Your task to perform on an android device: snooze an email in the gmail app Image 0: 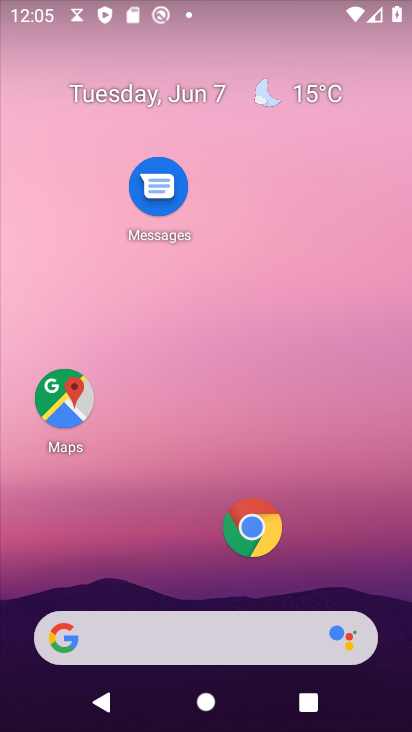
Step 0: drag from (156, 546) to (210, 158)
Your task to perform on an android device: snooze an email in the gmail app Image 1: 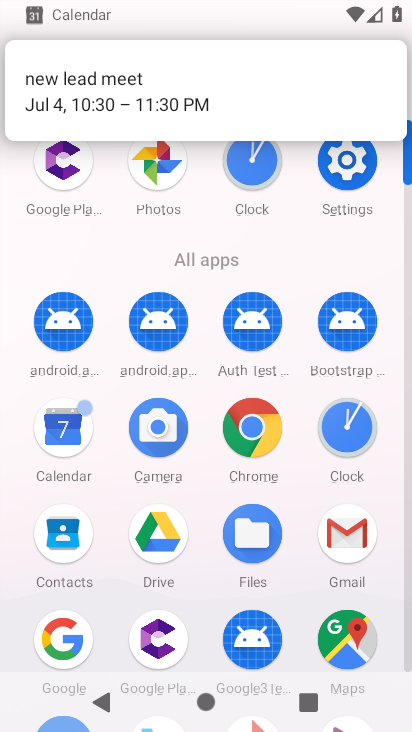
Step 1: click (352, 530)
Your task to perform on an android device: snooze an email in the gmail app Image 2: 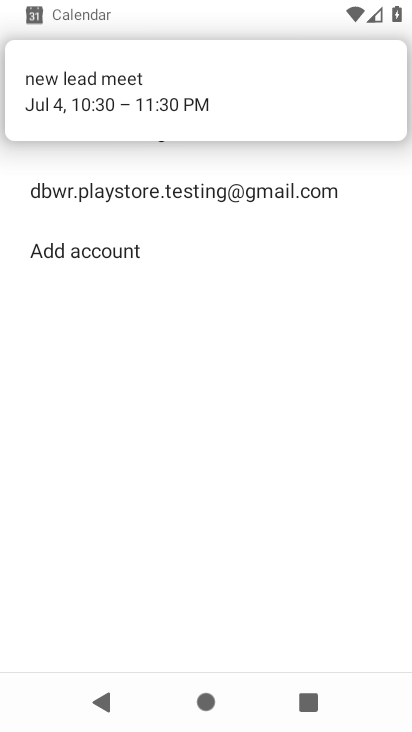
Step 2: drag from (31, 96) to (404, 104)
Your task to perform on an android device: snooze an email in the gmail app Image 3: 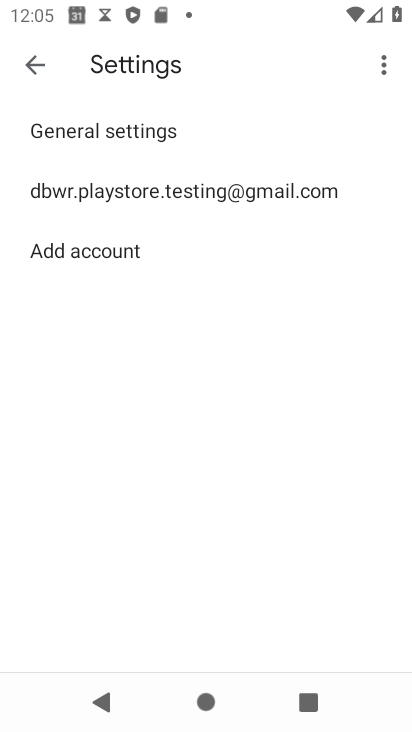
Step 3: click (37, 69)
Your task to perform on an android device: snooze an email in the gmail app Image 4: 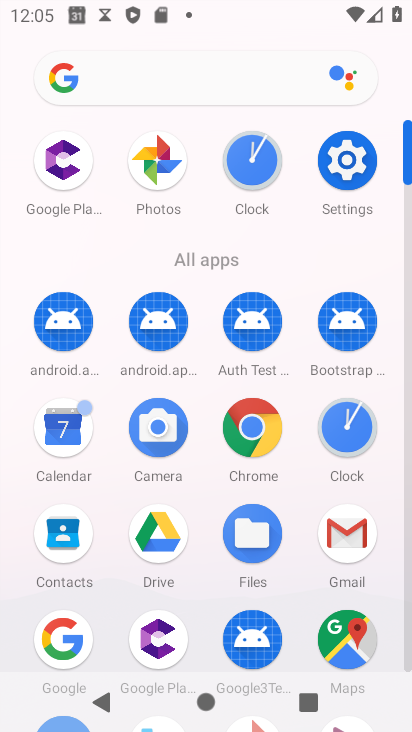
Step 4: click (360, 541)
Your task to perform on an android device: snooze an email in the gmail app Image 5: 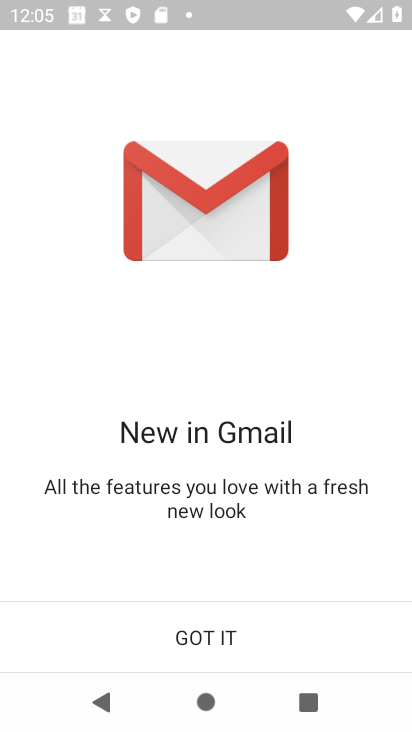
Step 5: click (186, 622)
Your task to perform on an android device: snooze an email in the gmail app Image 6: 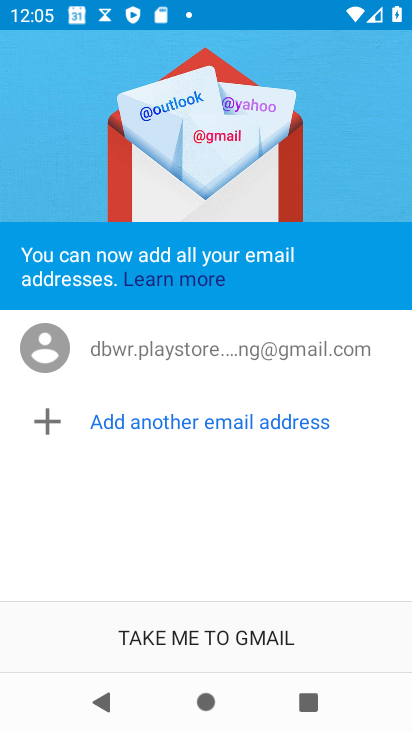
Step 6: click (186, 622)
Your task to perform on an android device: snooze an email in the gmail app Image 7: 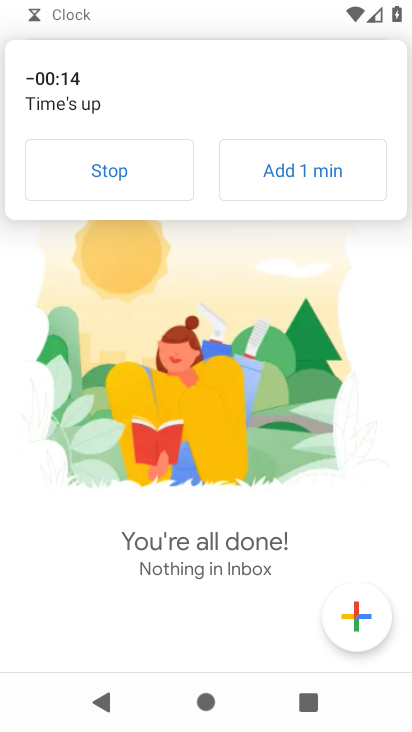
Step 7: click (90, 176)
Your task to perform on an android device: snooze an email in the gmail app Image 8: 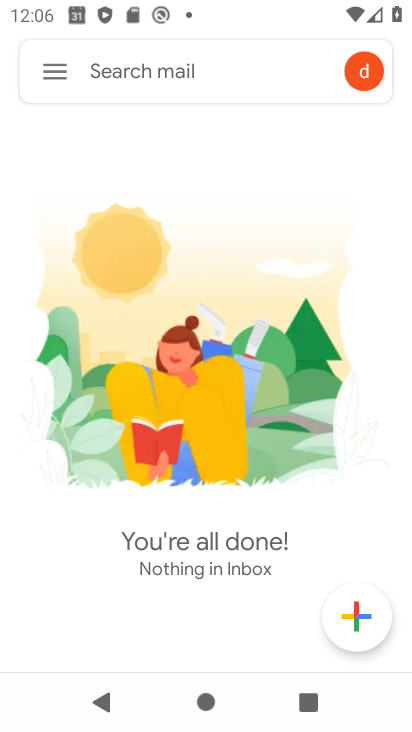
Step 8: click (49, 83)
Your task to perform on an android device: snooze an email in the gmail app Image 9: 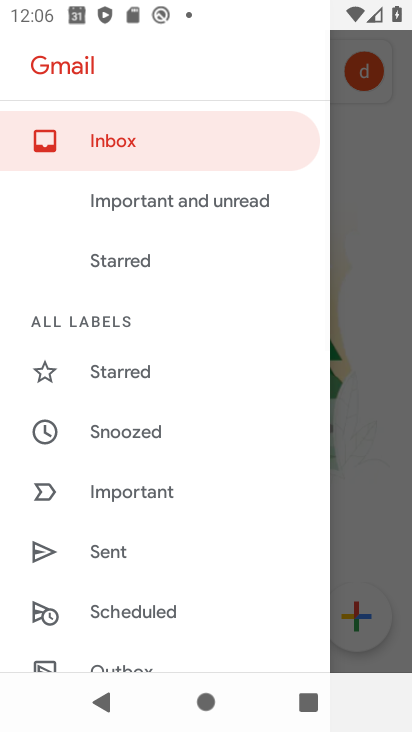
Step 9: click (102, 422)
Your task to perform on an android device: snooze an email in the gmail app Image 10: 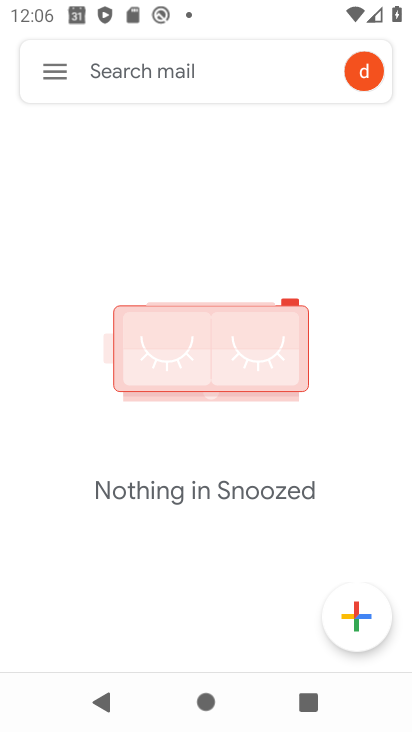
Step 10: task complete